Your task to perform on an android device: make emails show in primary in the gmail app Image 0: 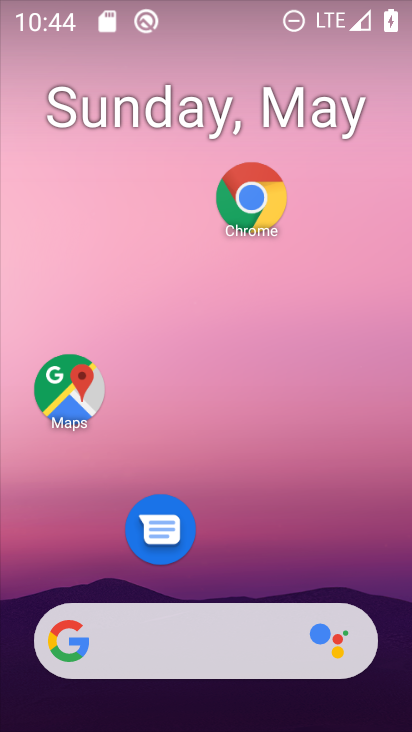
Step 0: drag from (258, 574) to (320, 109)
Your task to perform on an android device: make emails show in primary in the gmail app Image 1: 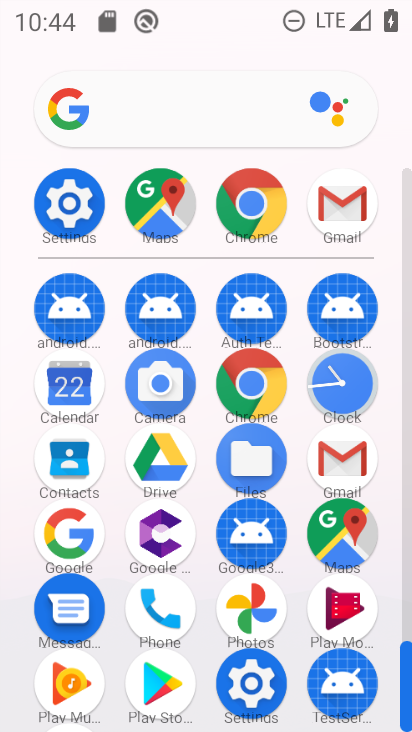
Step 1: click (344, 456)
Your task to perform on an android device: make emails show in primary in the gmail app Image 2: 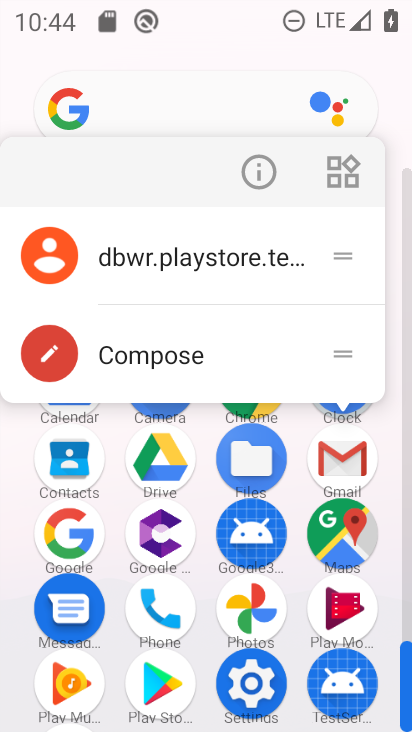
Step 2: click (344, 456)
Your task to perform on an android device: make emails show in primary in the gmail app Image 3: 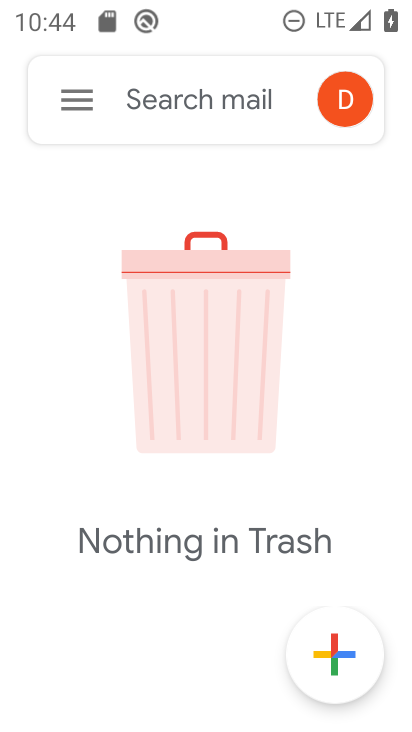
Step 3: click (83, 94)
Your task to perform on an android device: make emails show in primary in the gmail app Image 4: 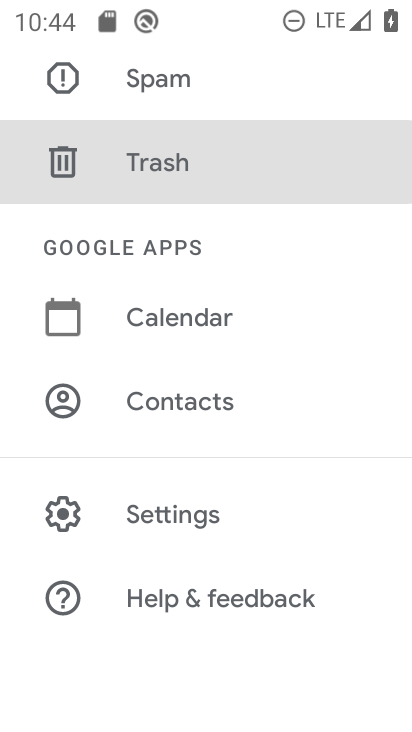
Step 4: click (187, 515)
Your task to perform on an android device: make emails show in primary in the gmail app Image 5: 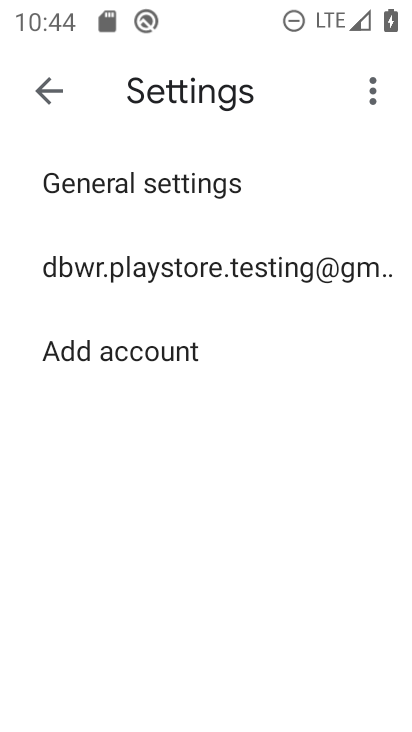
Step 5: click (136, 272)
Your task to perform on an android device: make emails show in primary in the gmail app Image 6: 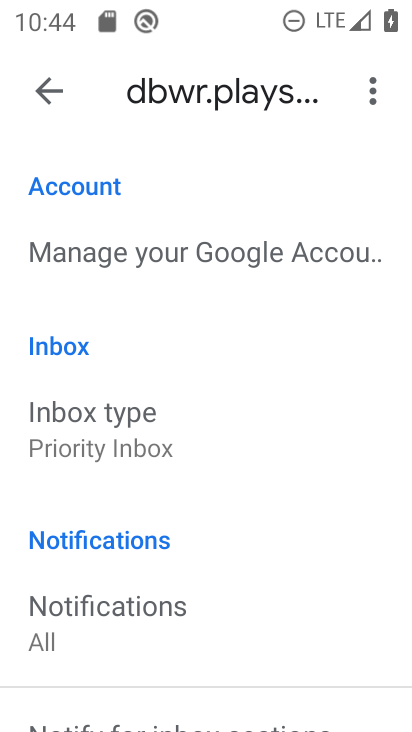
Step 6: click (122, 422)
Your task to perform on an android device: make emails show in primary in the gmail app Image 7: 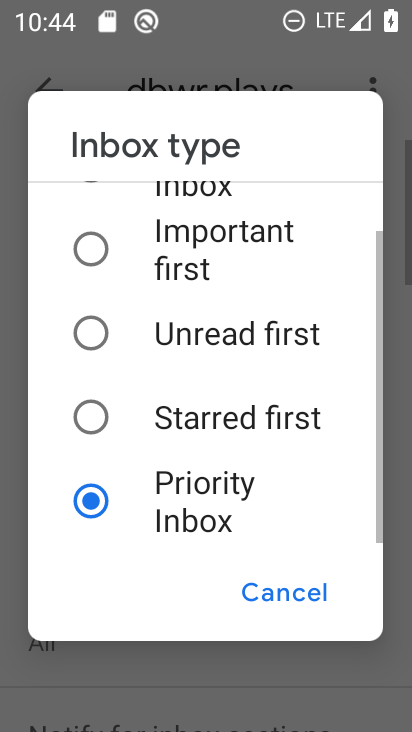
Step 7: drag from (168, 279) to (191, 556)
Your task to perform on an android device: make emails show in primary in the gmail app Image 8: 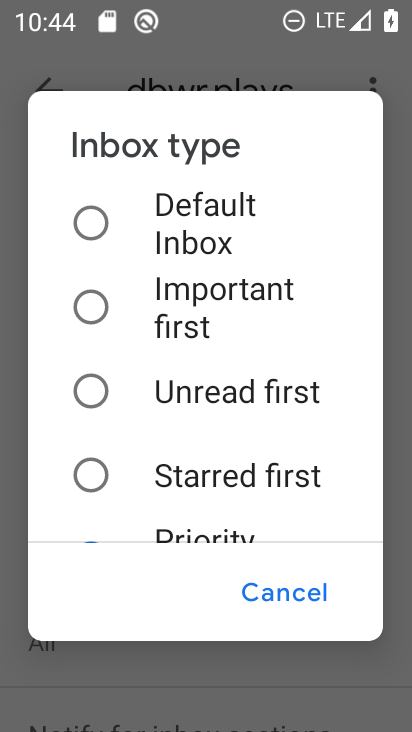
Step 8: click (201, 221)
Your task to perform on an android device: make emails show in primary in the gmail app Image 9: 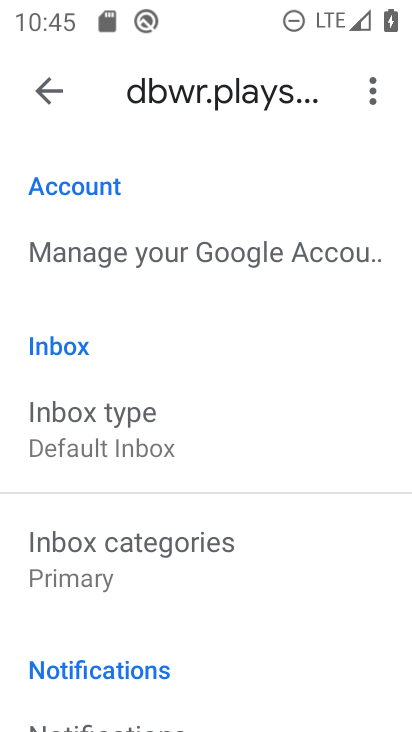
Step 9: task complete